Your task to perform on an android device: move an email to a new category in the gmail app Image 0: 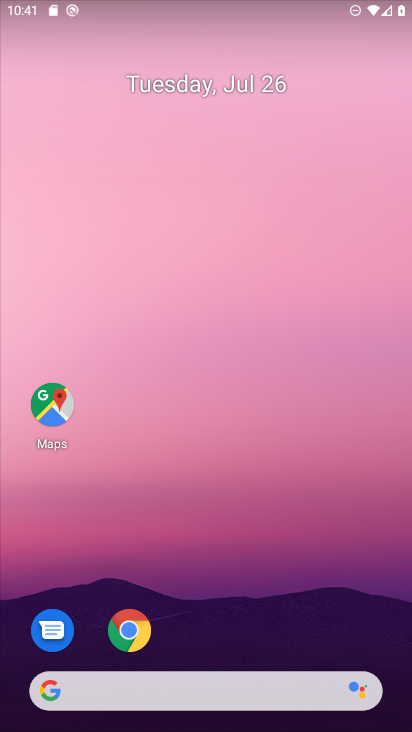
Step 0: drag from (360, 631) to (305, 175)
Your task to perform on an android device: move an email to a new category in the gmail app Image 1: 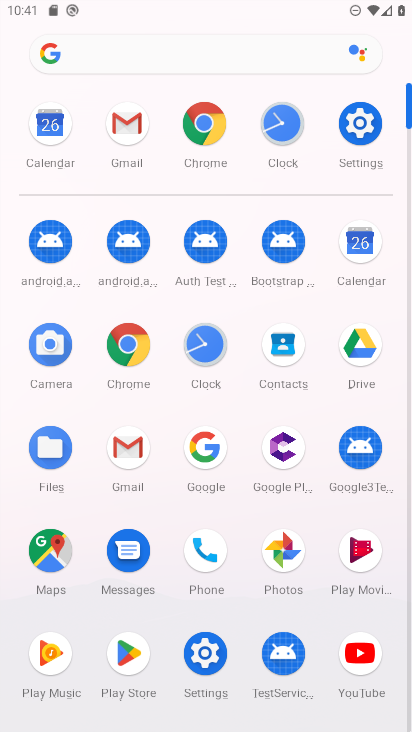
Step 1: click (124, 443)
Your task to perform on an android device: move an email to a new category in the gmail app Image 2: 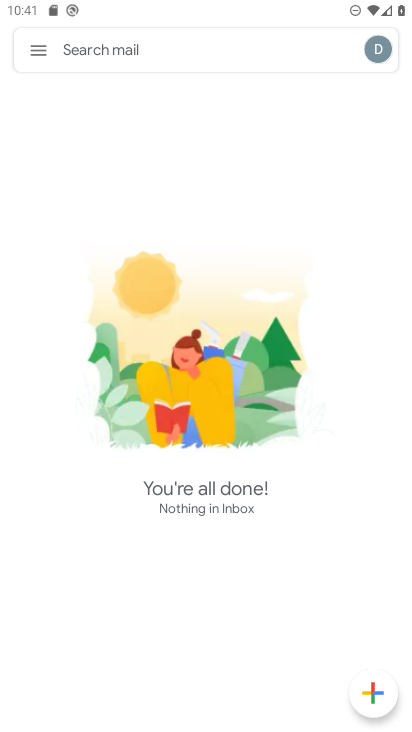
Step 2: click (33, 55)
Your task to perform on an android device: move an email to a new category in the gmail app Image 3: 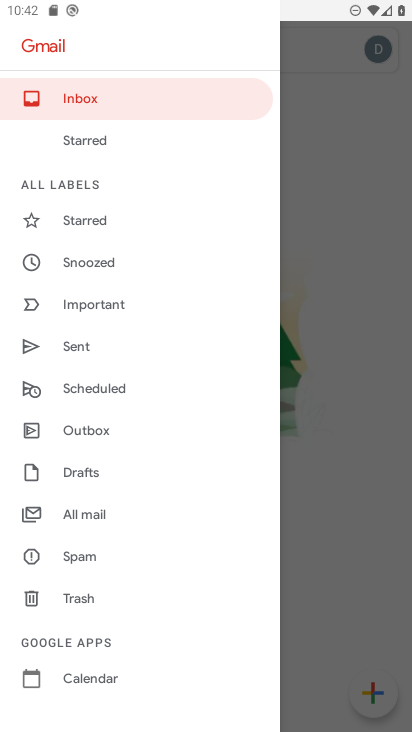
Step 3: drag from (132, 633) to (156, 260)
Your task to perform on an android device: move an email to a new category in the gmail app Image 4: 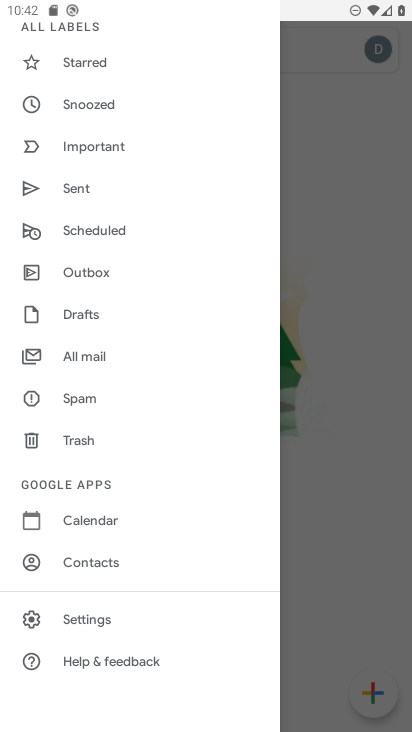
Step 4: click (97, 357)
Your task to perform on an android device: move an email to a new category in the gmail app Image 5: 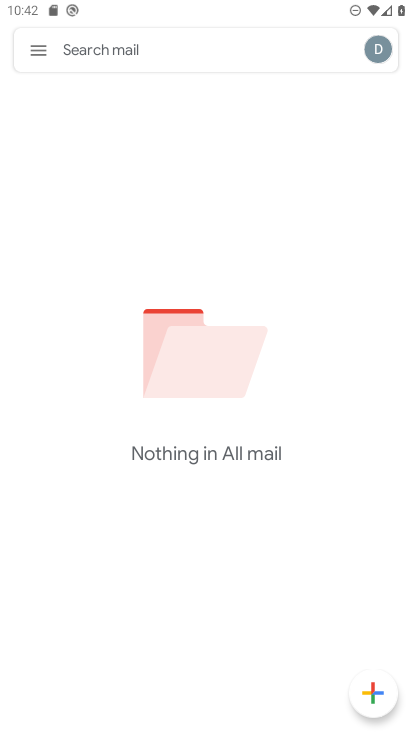
Step 5: task complete